Your task to perform on an android device: Open the calendar app, open the side menu, and click the "Day" option Image 0: 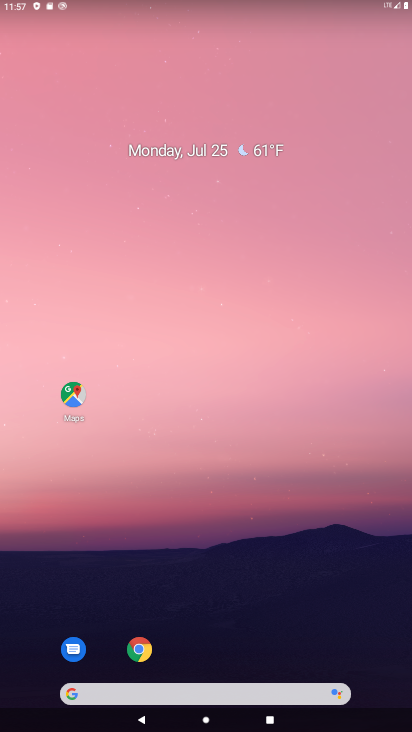
Step 0: drag from (211, 668) to (130, 49)
Your task to perform on an android device: Open the calendar app, open the side menu, and click the "Day" option Image 1: 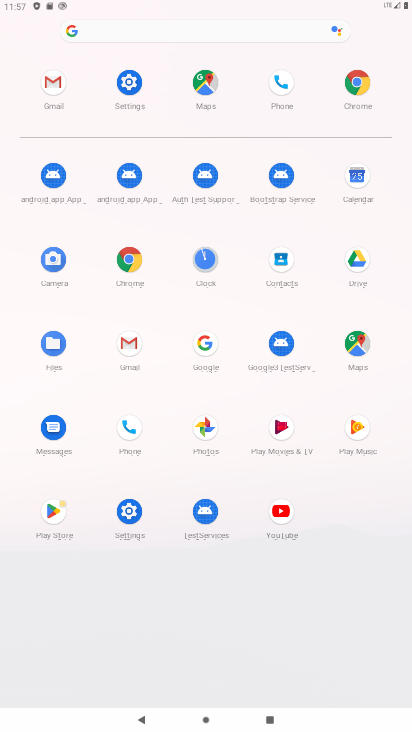
Step 1: click (357, 189)
Your task to perform on an android device: Open the calendar app, open the side menu, and click the "Day" option Image 2: 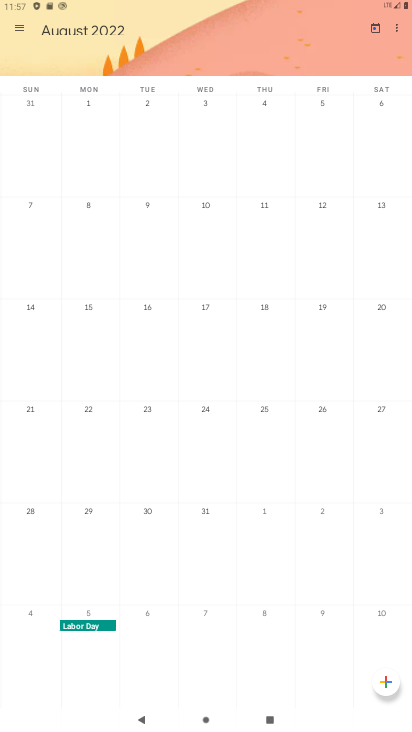
Step 2: click (19, 29)
Your task to perform on an android device: Open the calendar app, open the side menu, and click the "Day" option Image 3: 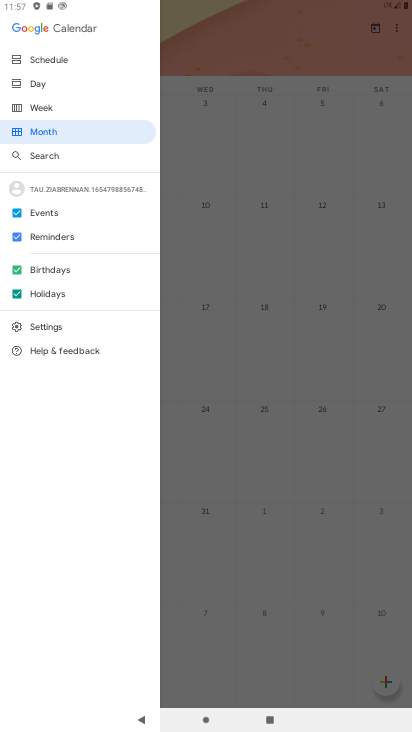
Step 3: click (40, 77)
Your task to perform on an android device: Open the calendar app, open the side menu, and click the "Day" option Image 4: 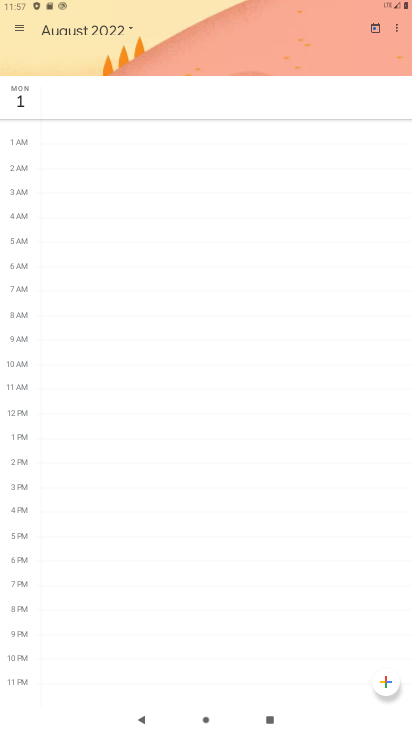
Step 4: task complete